Your task to perform on an android device: turn on notifications settings in the gmail app Image 0: 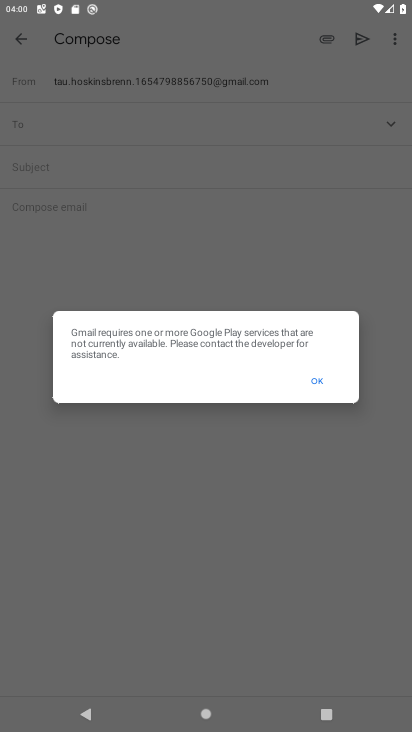
Step 0: press home button
Your task to perform on an android device: turn on notifications settings in the gmail app Image 1: 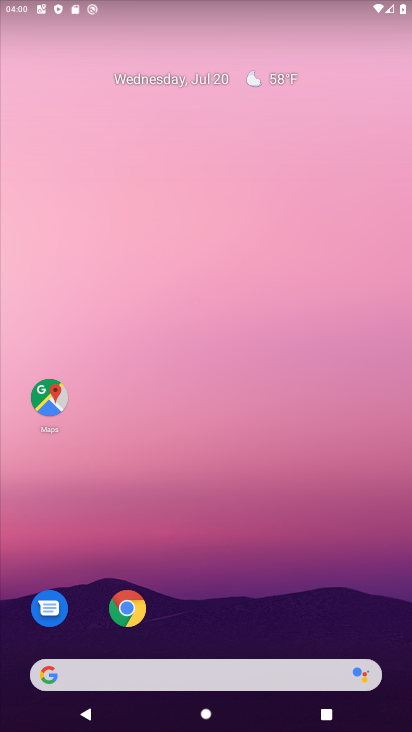
Step 1: drag from (238, 617) to (228, 223)
Your task to perform on an android device: turn on notifications settings in the gmail app Image 2: 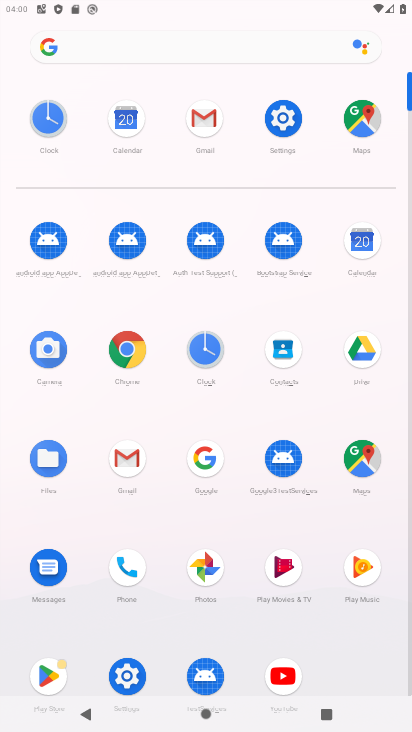
Step 2: click (293, 135)
Your task to perform on an android device: turn on notifications settings in the gmail app Image 3: 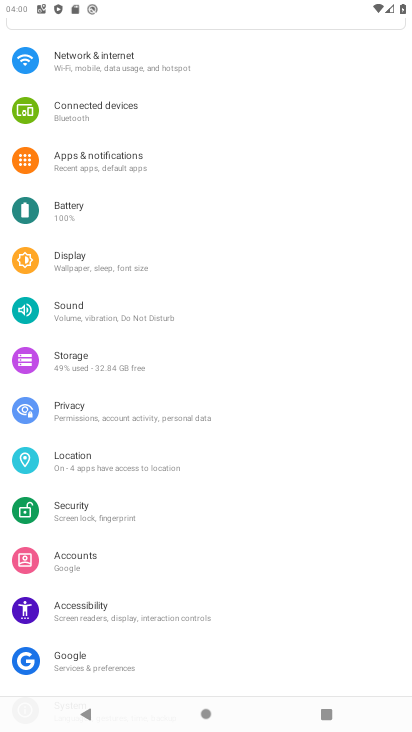
Step 3: click (144, 160)
Your task to perform on an android device: turn on notifications settings in the gmail app Image 4: 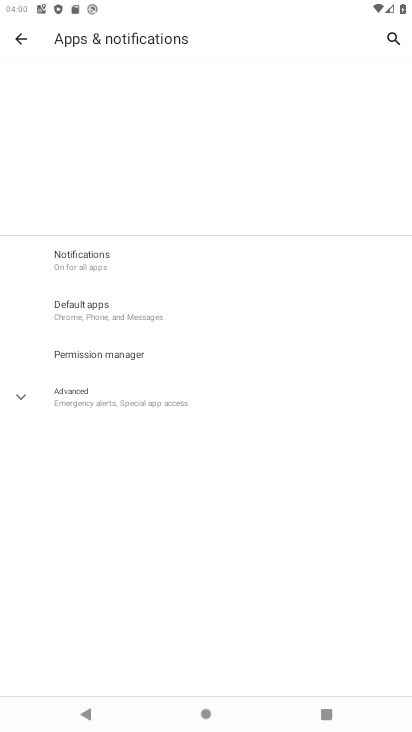
Step 4: task complete